Your task to perform on an android device: turn on data saver in the chrome app Image 0: 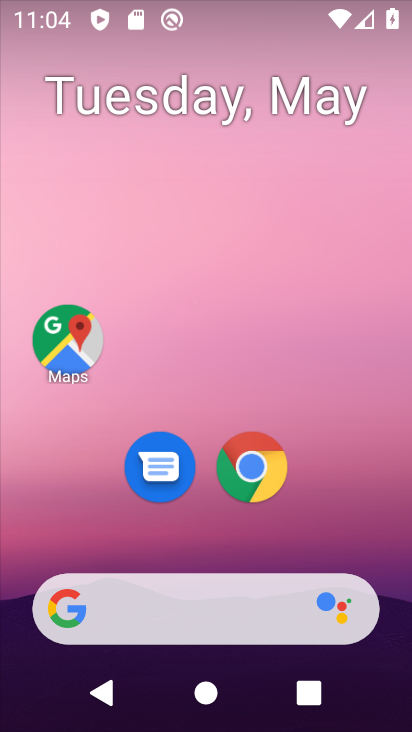
Step 0: drag from (355, 504) to (242, 22)
Your task to perform on an android device: turn on data saver in the chrome app Image 1: 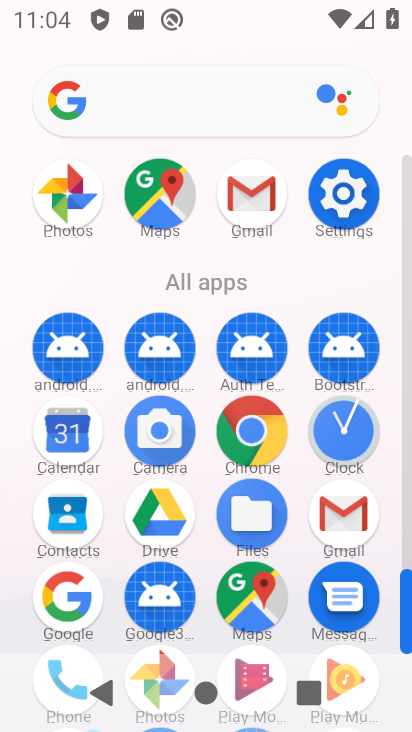
Step 1: drag from (12, 584) to (11, 231)
Your task to perform on an android device: turn on data saver in the chrome app Image 2: 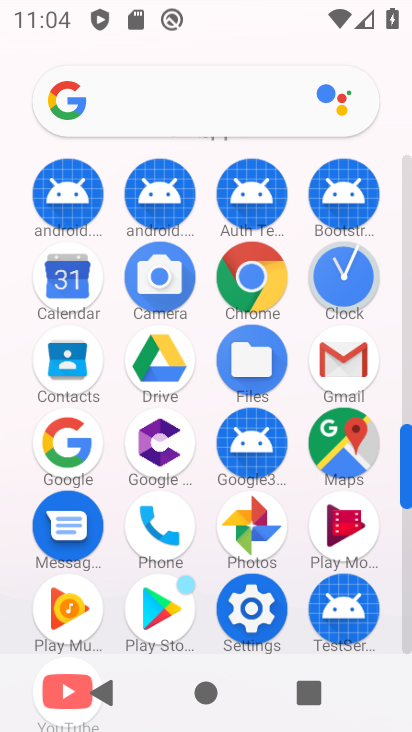
Step 2: click (250, 272)
Your task to perform on an android device: turn on data saver in the chrome app Image 3: 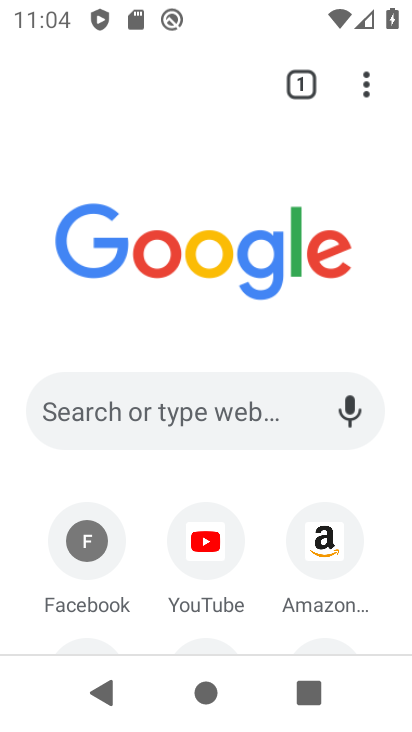
Step 3: drag from (368, 82) to (172, 497)
Your task to perform on an android device: turn on data saver in the chrome app Image 4: 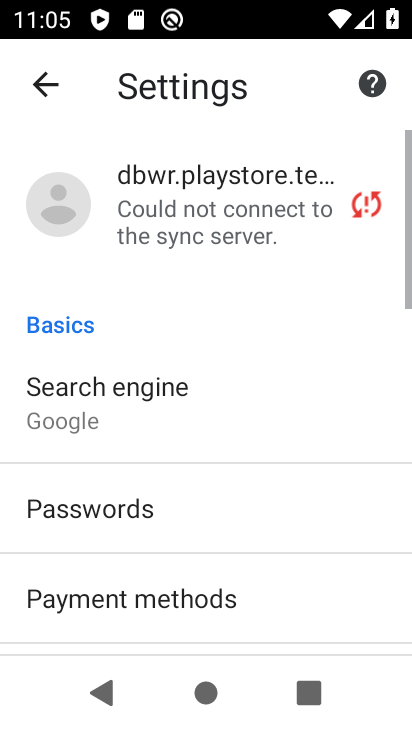
Step 4: drag from (260, 545) to (310, 98)
Your task to perform on an android device: turn on data saver in the chrome app Image 5: 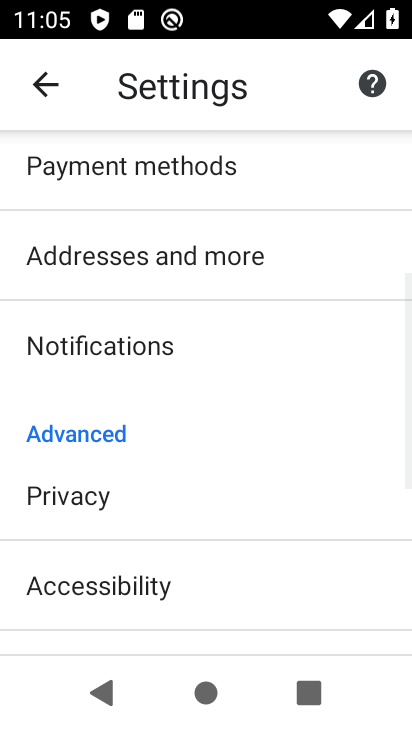
Step 5: drag from (264, 512) to (256, 156)
Your task to perform on an android device: turn on data saver in the chrome app Image 6: 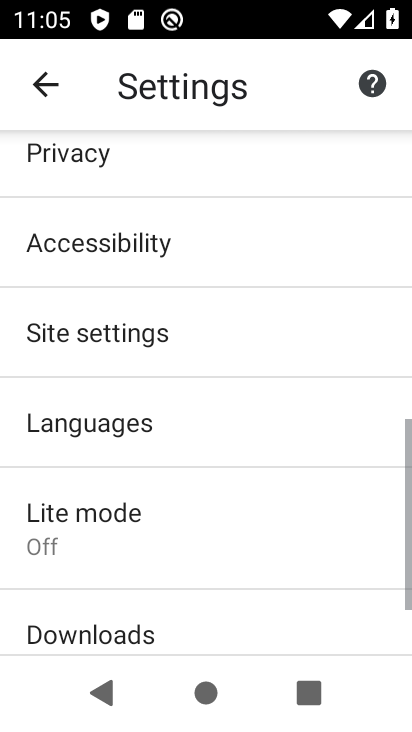
Step 6: drag from (237, 519) to (251, 221)
Your task to perform on an android device: turn on data saver in the chrome app Image 7: 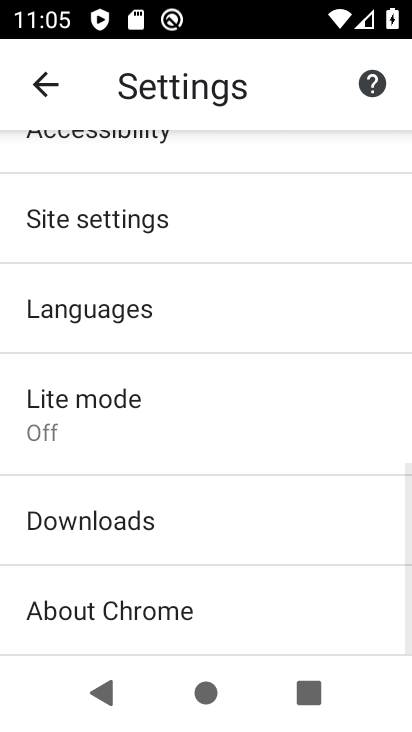
Step 7: click (176, 420)
Your task to perform on an android device: turn on data saver in the chrome app Image 8: 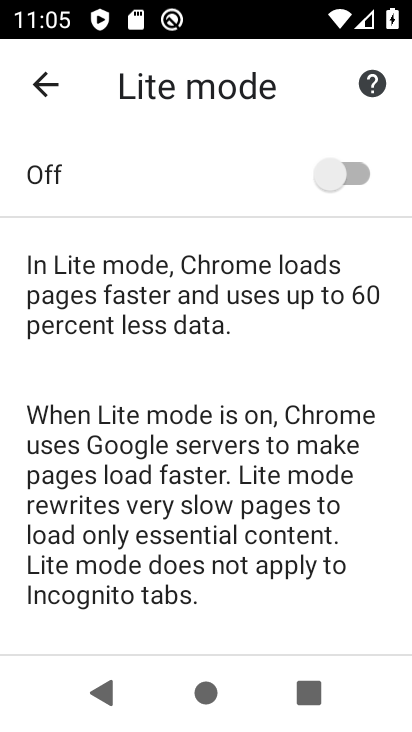
Step 8: click (340, 171)
Your task to perform on an android device: turn on data saver in the chrome app Image 9: 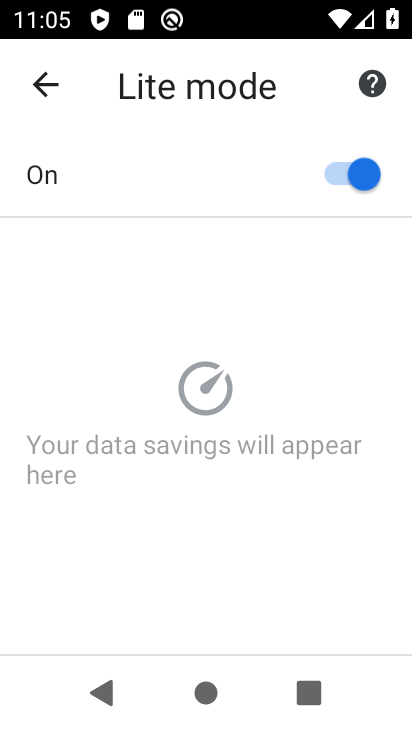
Step 9: task complete